Your task to perform on an android device: add a contact in the contacts app Image 0: 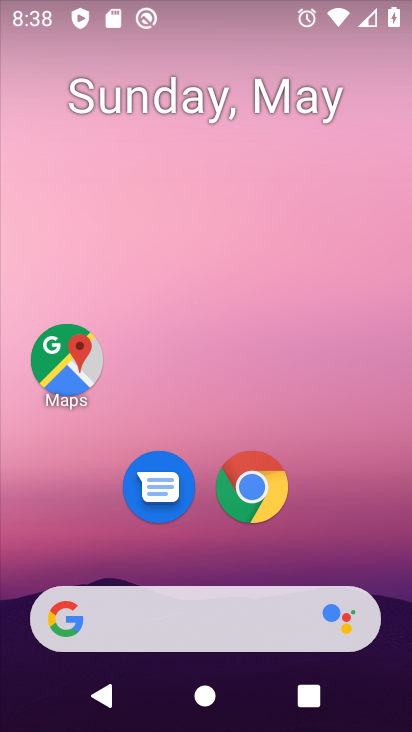
Step 0: click (240, 165)
Your task to perform on an android device: add a contact in the contacts app Image 1: 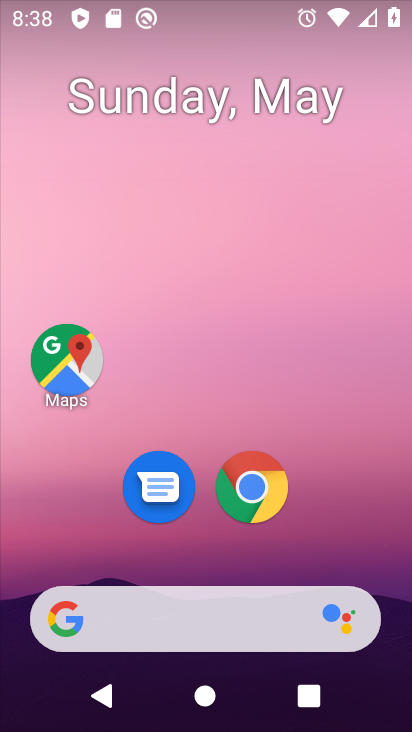
Step 1: drag from (303, 612) to (298, 210)
Your task to perform on an android device: add a contact in the contacts app Image 2: 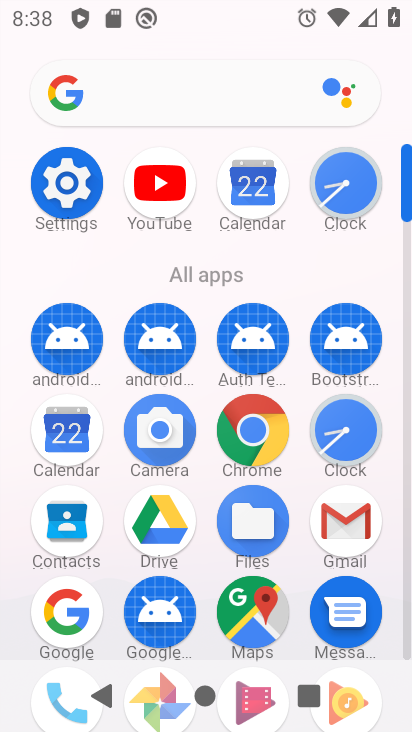
Step 2: click (66, 525)
Your task to perform on an android device: add a contact in the contacts app Image 3: 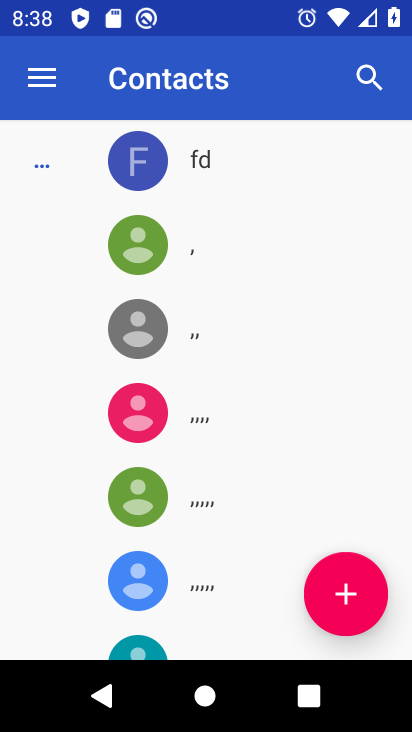
Step 3: click (336, 610)
Your task to perform on an android device: add a contact in the contacts app Image 4: 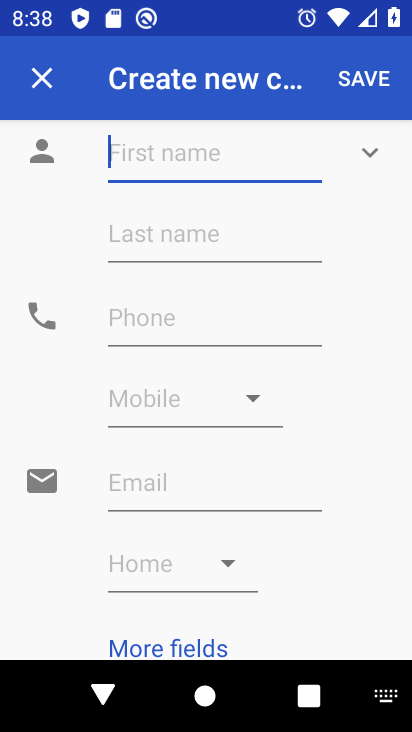
Step 4: click (127, 146)
Your task to perform on an android device: add a contact in the contacts app Image 5: 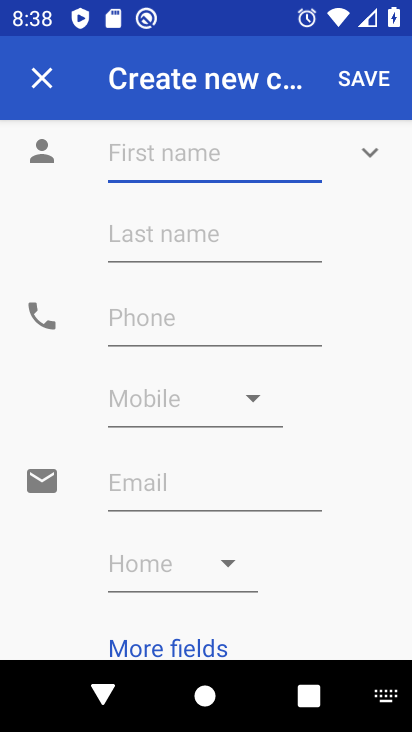
Step 5: click (148, 157)
Your task to perform on an android device: add a contact in the contacts app Image 6: 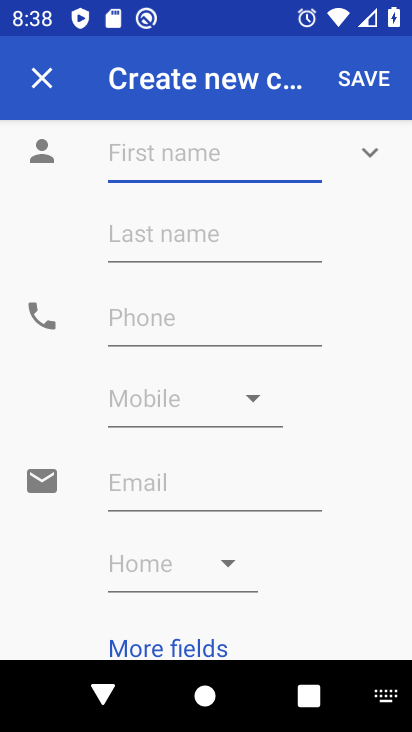
Step 6: type "hvhvh"
Your task to perform on an android device: add a contact in the contacts app Image 7: 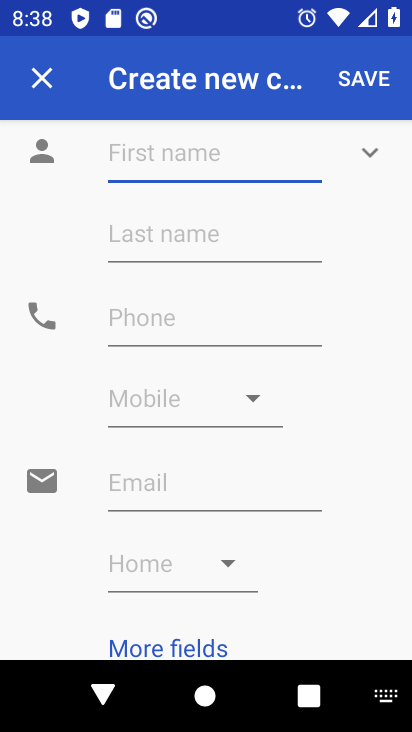
Step 7: click (143, 314)
Your task to perform on an android device: add a contact in the contacts app Image 8: 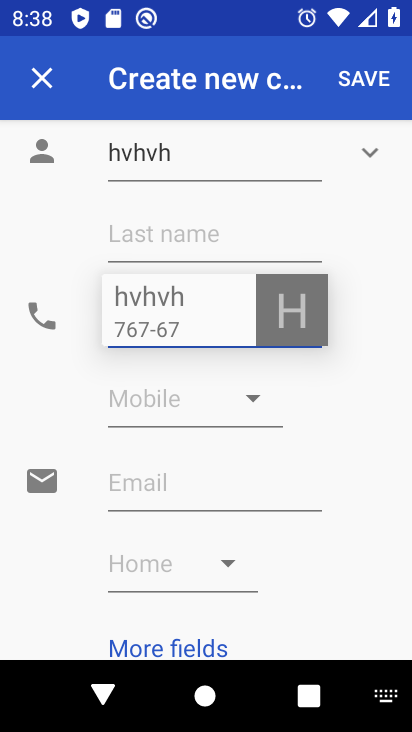
Step 8: type "78787"
Your task to perform on an android device: add a contact in the contacts app Image 9: 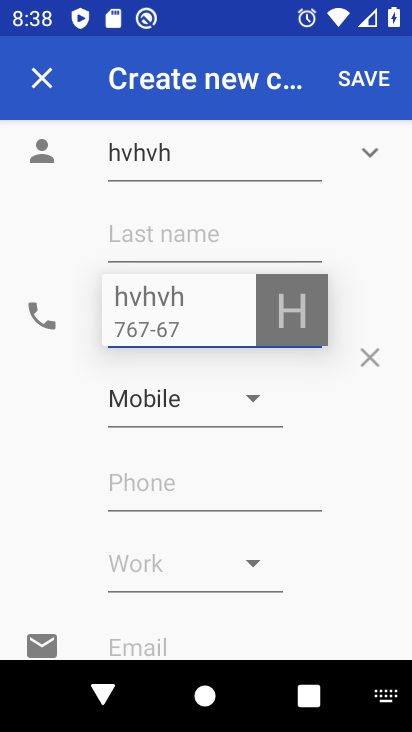
Step 9: click (367, 268)
Your task to perform on an android device: add a contact in the contacts app Image 10: 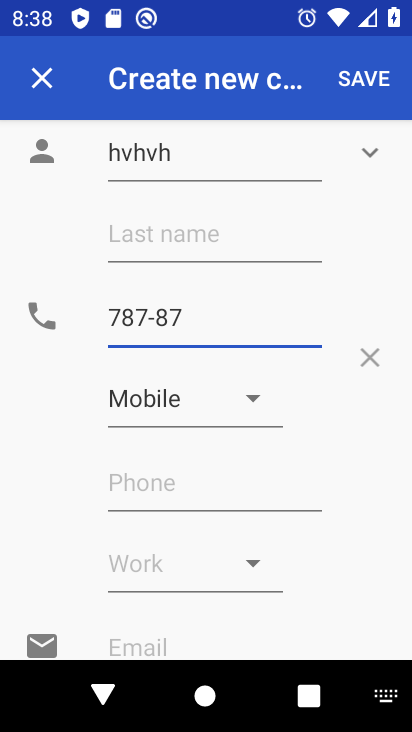
Step 10: click (358, 64)
Your task to perform on an android device: add a contact in the contacts app Image 11: 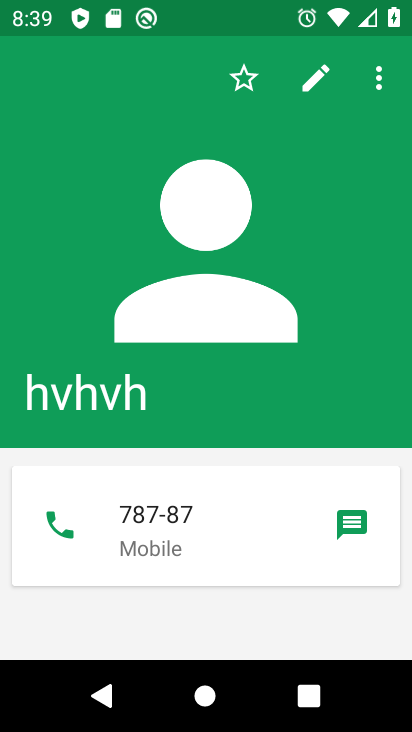
Step 11: task complete